Your task to perform on an android device: open the mobile data screen to see how much data has been used Image 0: 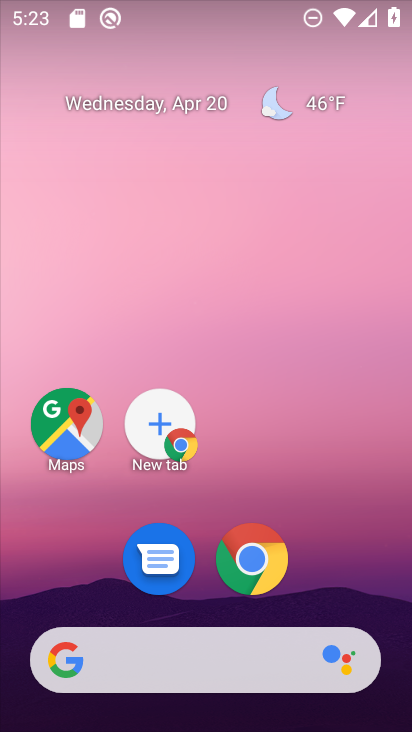
Step 0: drag from (350, 551) to (323, 73)
Your task to perform on an android device: open the mobile data screen to see how much data has been used Image 1: 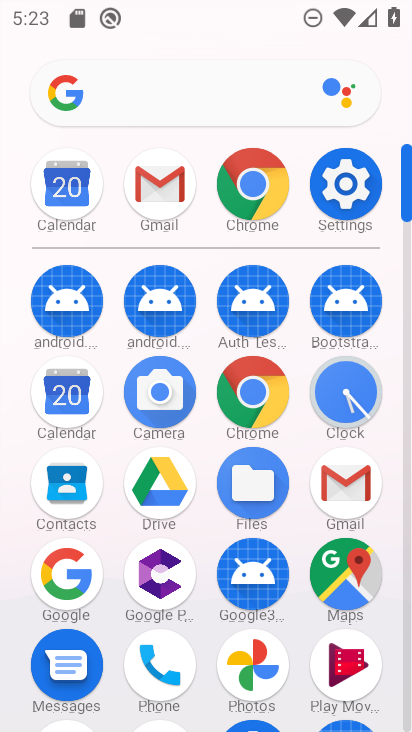
Step 1: click (358, 210)
Your task to perform on an android device: open the mobile data screen to see how much data has been used Image 2: 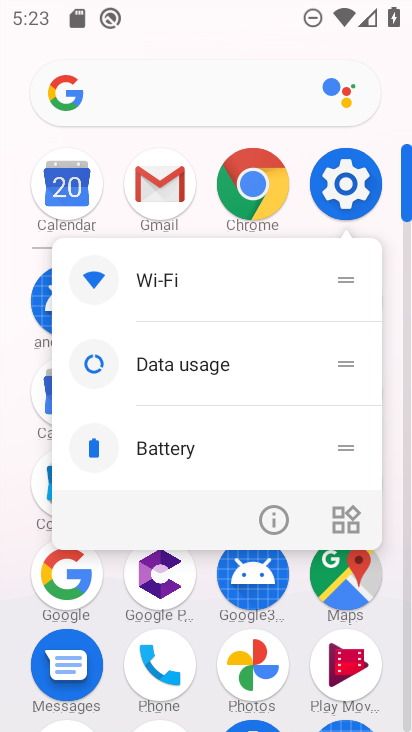
Step 2: click (351, 200)
Your task to perform on an android device: open the mobile data screen to see how much data has been used Image 3: 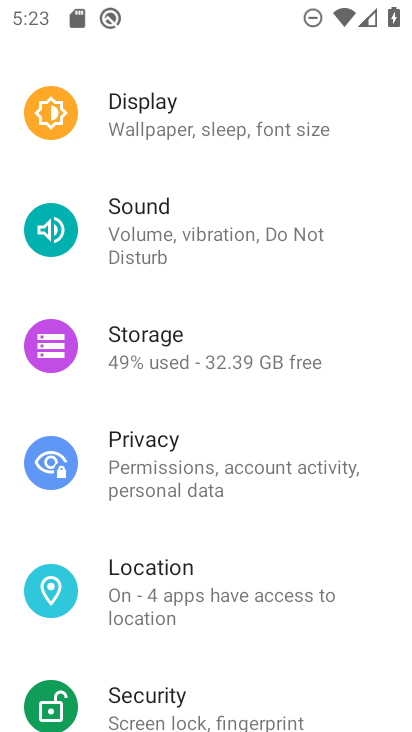
Step 3: drag from (202, 147) to (205, 517)
Your task to perform on an android device: open the mobile data screen to see how much data has been used Image 4: 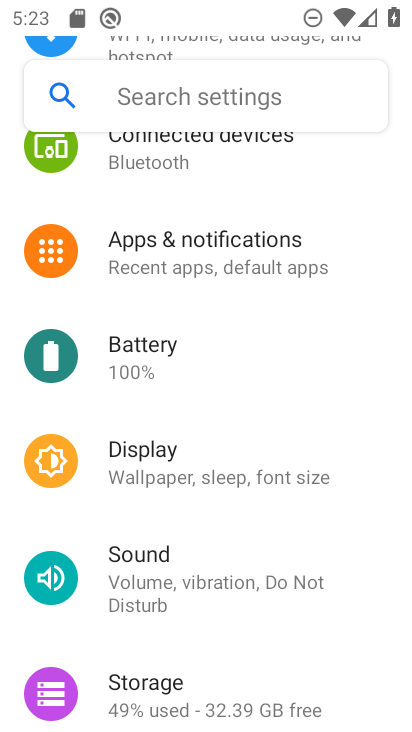
Step 4: drag from (236, 222) to (227, 472)
Your task to perform on an android device: open the mobile data screen to see how much data has been used Image 5: 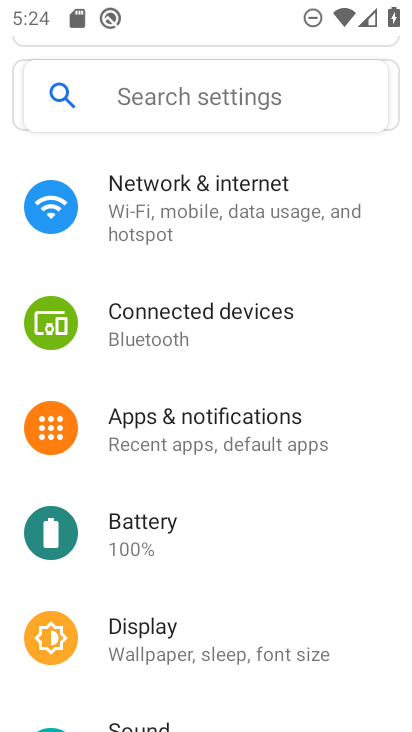
Step 5: click (227, 196)
Your task to perform on an android device: open the mobile data screen to see how much data has been used Image 6: 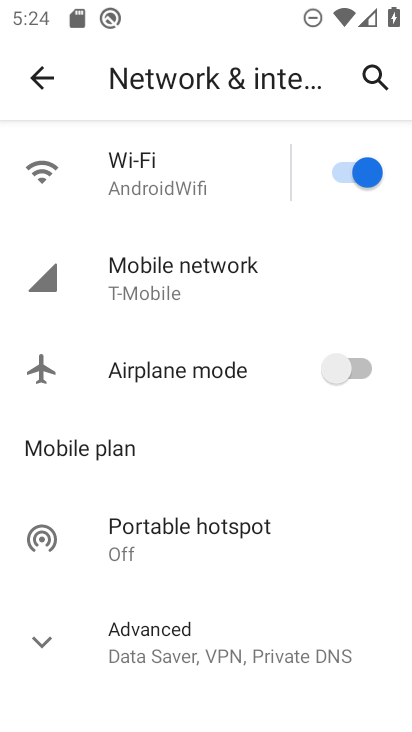
Step 6: click (203, 271)
Your task to perform on an android device: open the mobile data screen to see how much data has been used Image 7: 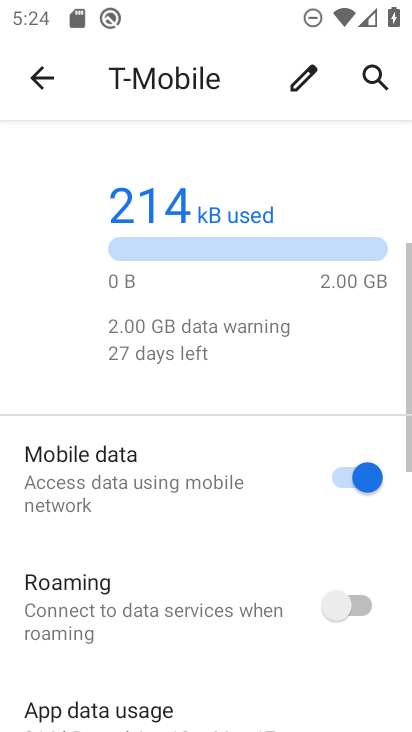
Step 7: task complete